Your task to perform on an android device: Open privacy settings Image 0: 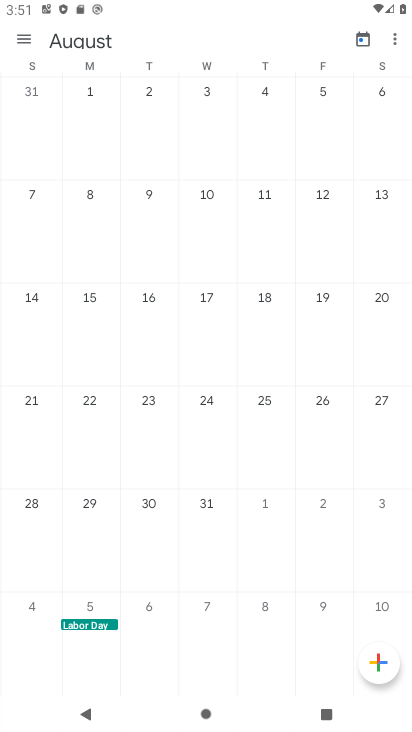
Step 0: press home button
Your task to perform on an android device: Open privacy settings Image 1: 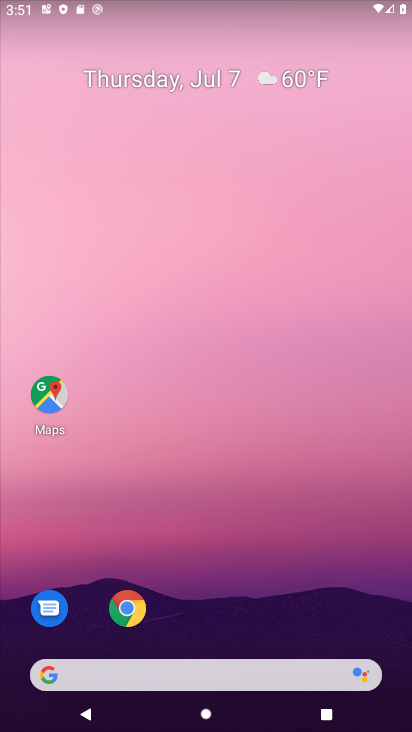
Step 1: drag from (196, 666) to (120, 1)
Your task to perform on an android device: Open privacy settings Image 2: 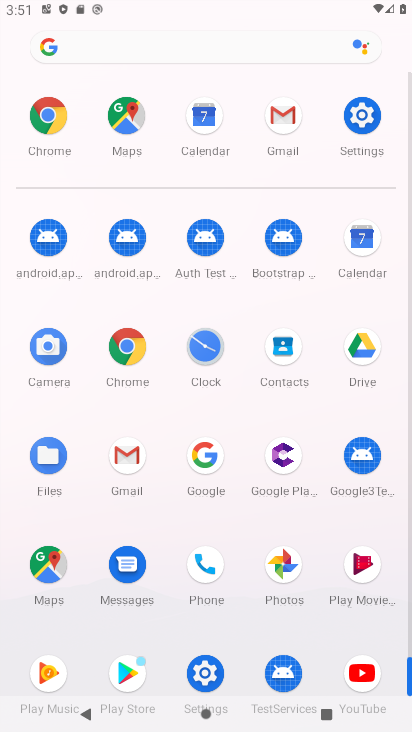
Step 2: click (355, 103)
Your task to perform on an android device: Open privacy settings Image 3: 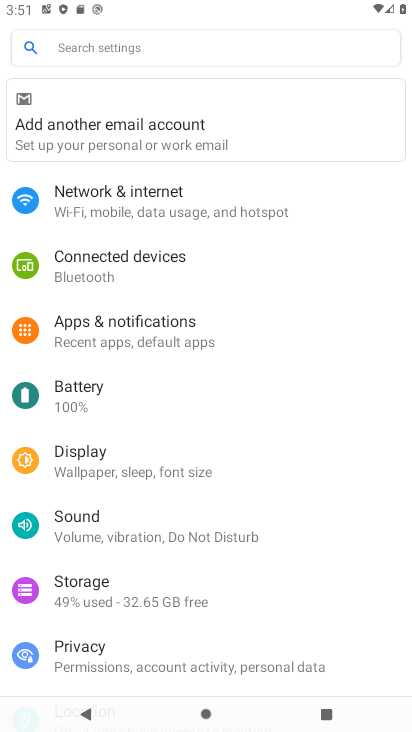
Step 3: click (128, 641)
Your task to perform on an android device: Open privacy settings Image 4: 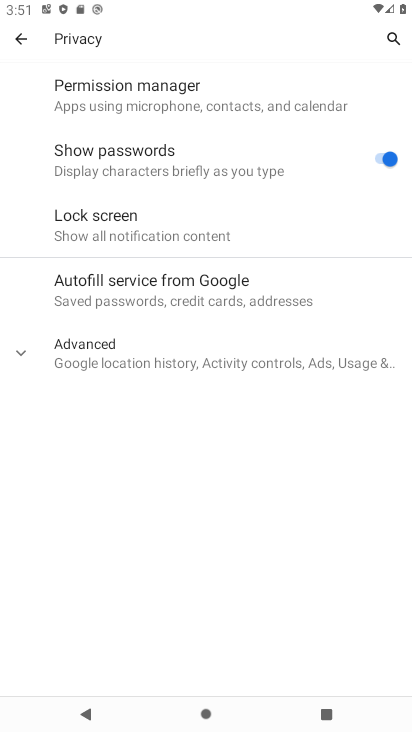
Step 4: click (180, 360)
Your task to perform on an android device: Open privacy settings Image 5: 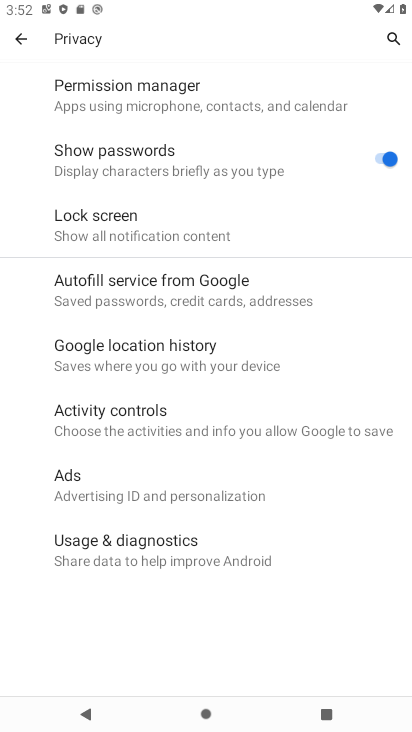
Step 5: task complete